Your task to perform on an android device: Clear the shopping cart on bestbuy. Image 0: 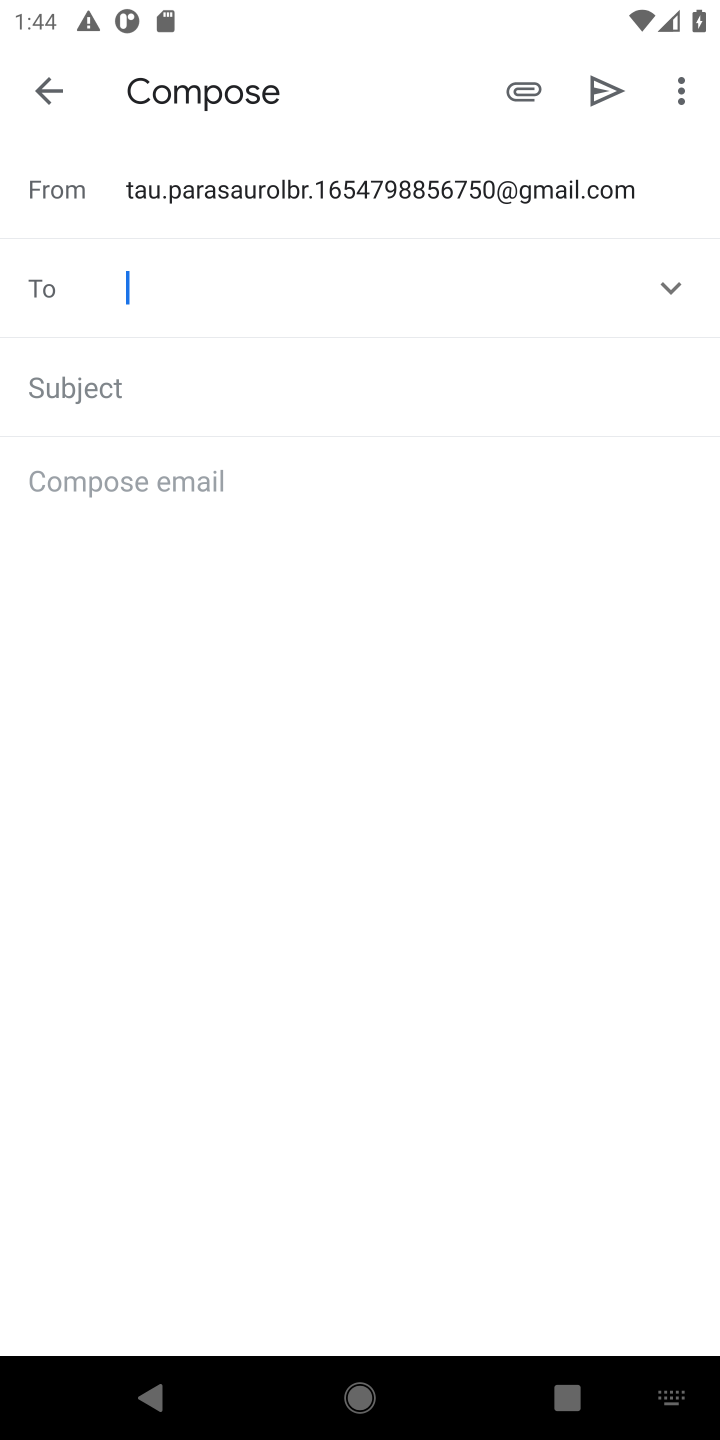
Step 0: press home button
Your task to perform on an android device: Clear the shopping cart on bestbuy. Image 1: 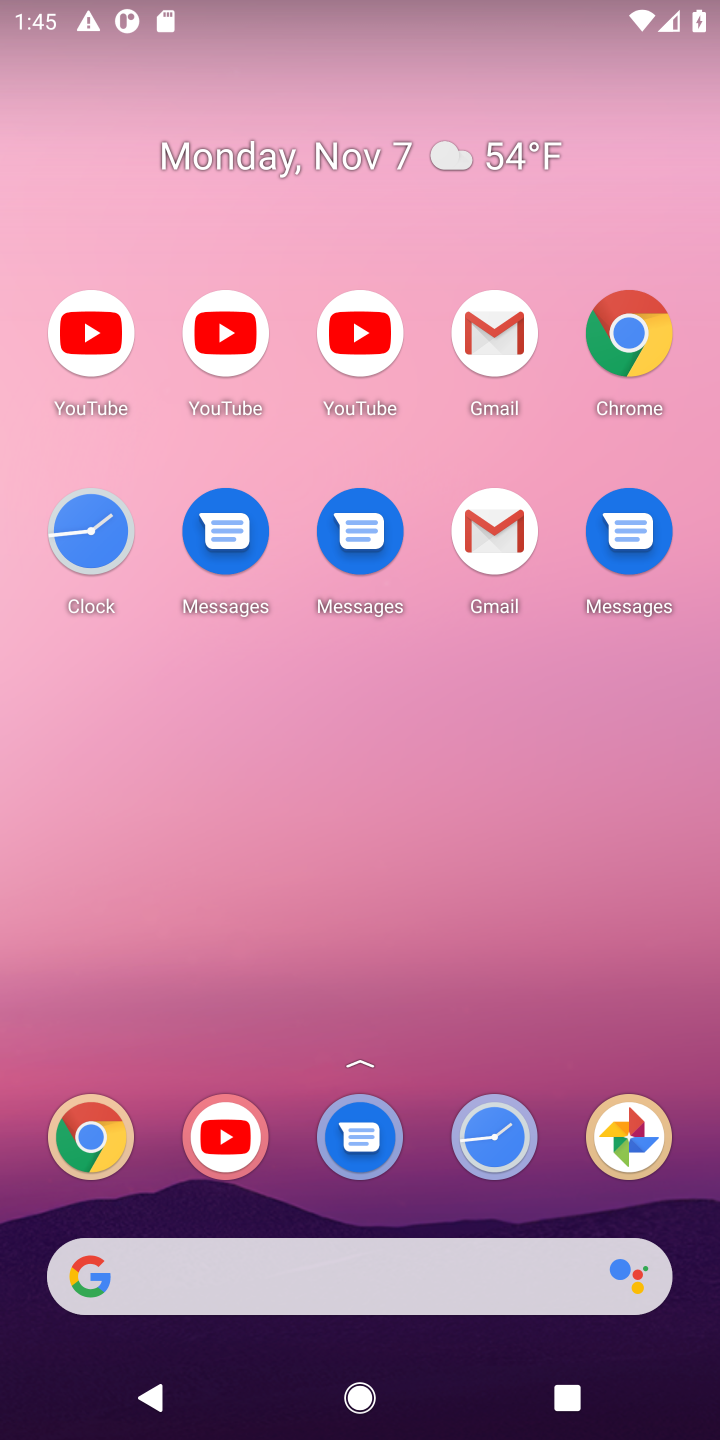
Step 1: drag from (439, 1215) to (288, 116)
Your task to perform on an android device: Clear the shopping cart on bestbuy. Image 2: 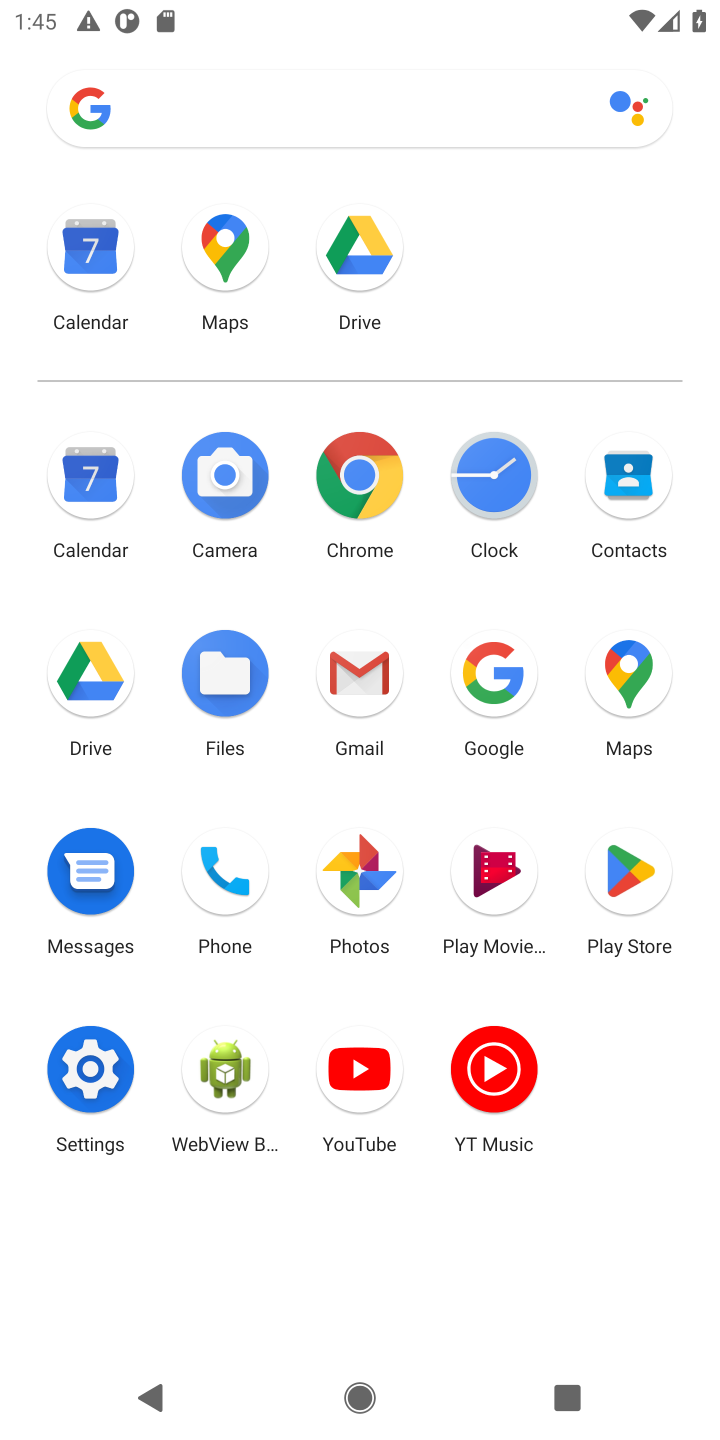
Step 2: click (358, 477)
Your task to perform on an android device: Clear the shopping cart on bestbuy. Image 3: 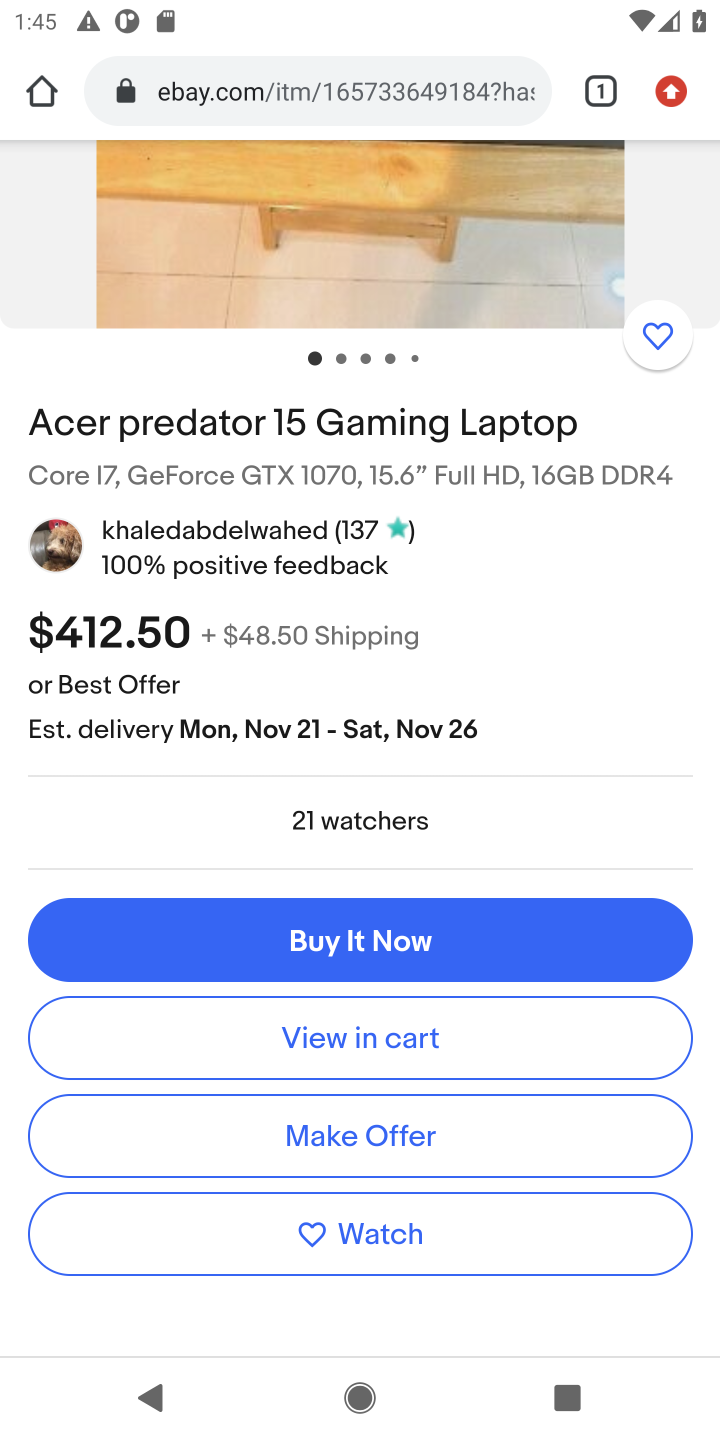
Step 3: click (396, 85)
Your task to perform on an android device: Clear the shopping cart on bestbuy. Image 4: 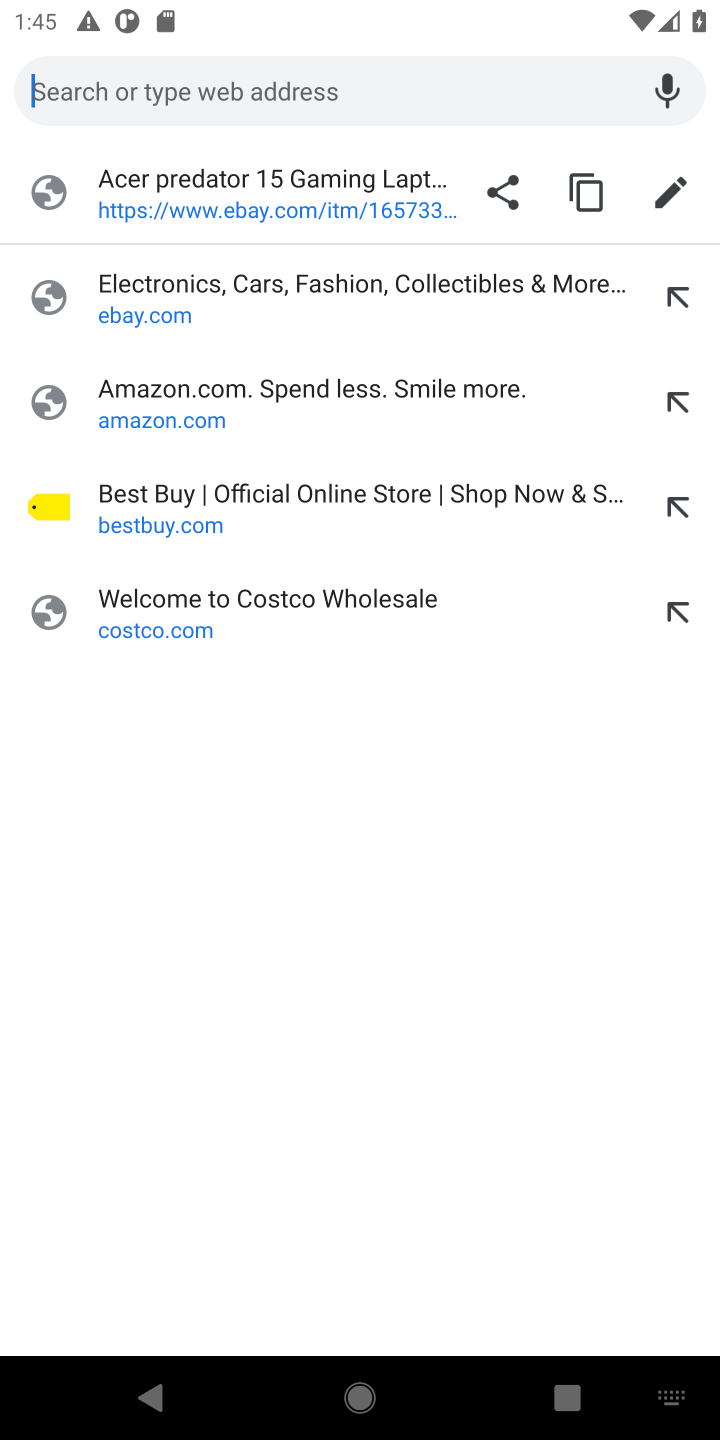
Step 4: type "bestbuy.com"
Your task to perform on an android device: Clear the shopping cart on bestbuy. Image 5: 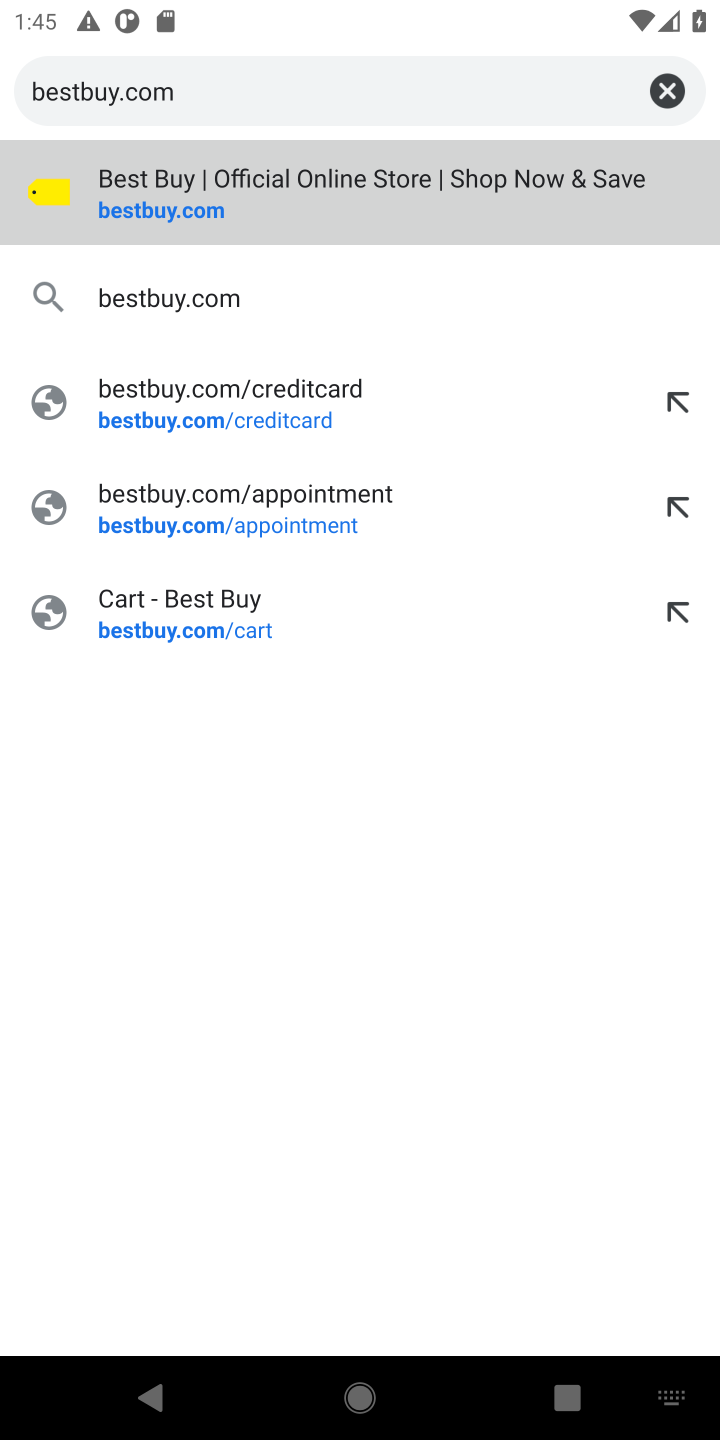
Step 5: press enter
Your task to perform on an android device: Clear the shopping cart on bestbuy. Image 6: 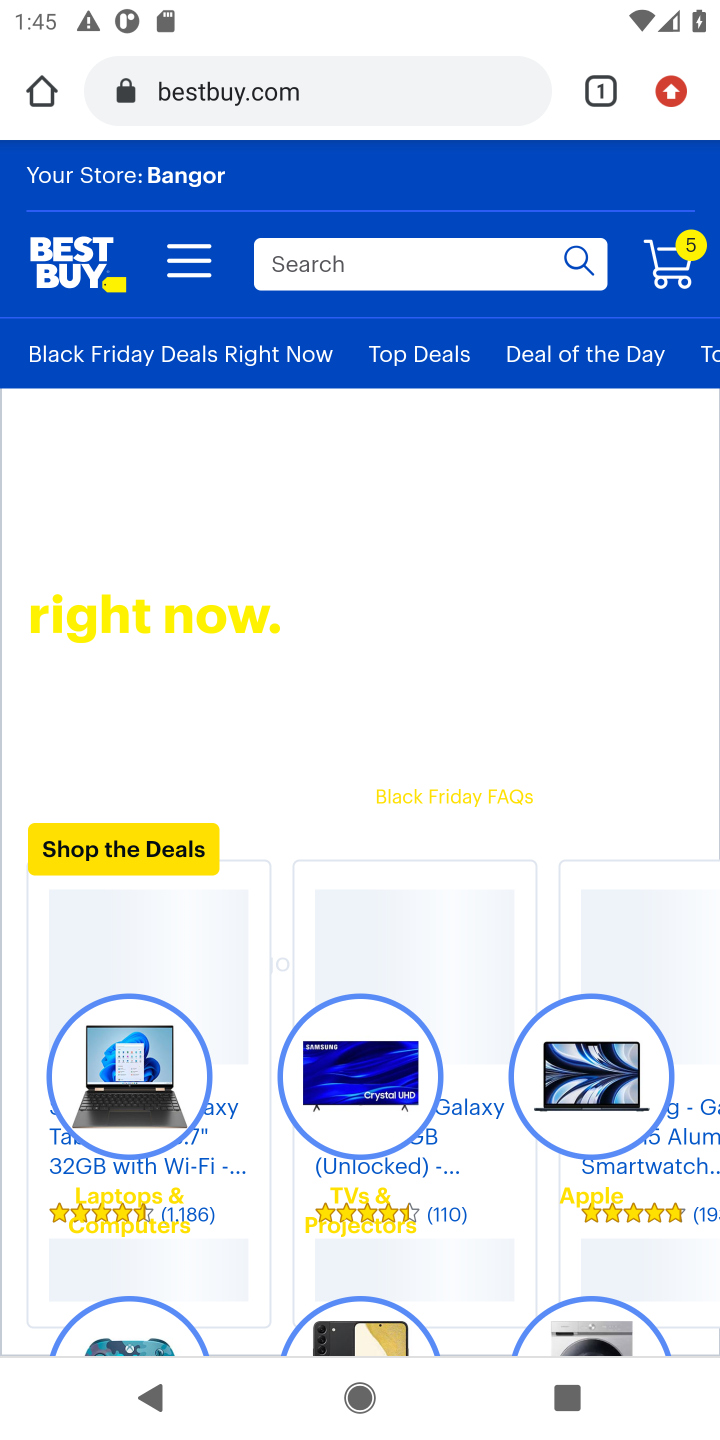
Step 6: click (679, 269)
Your task to perform on an android device: Clear the shopping cart on bestbuy. Image 7: 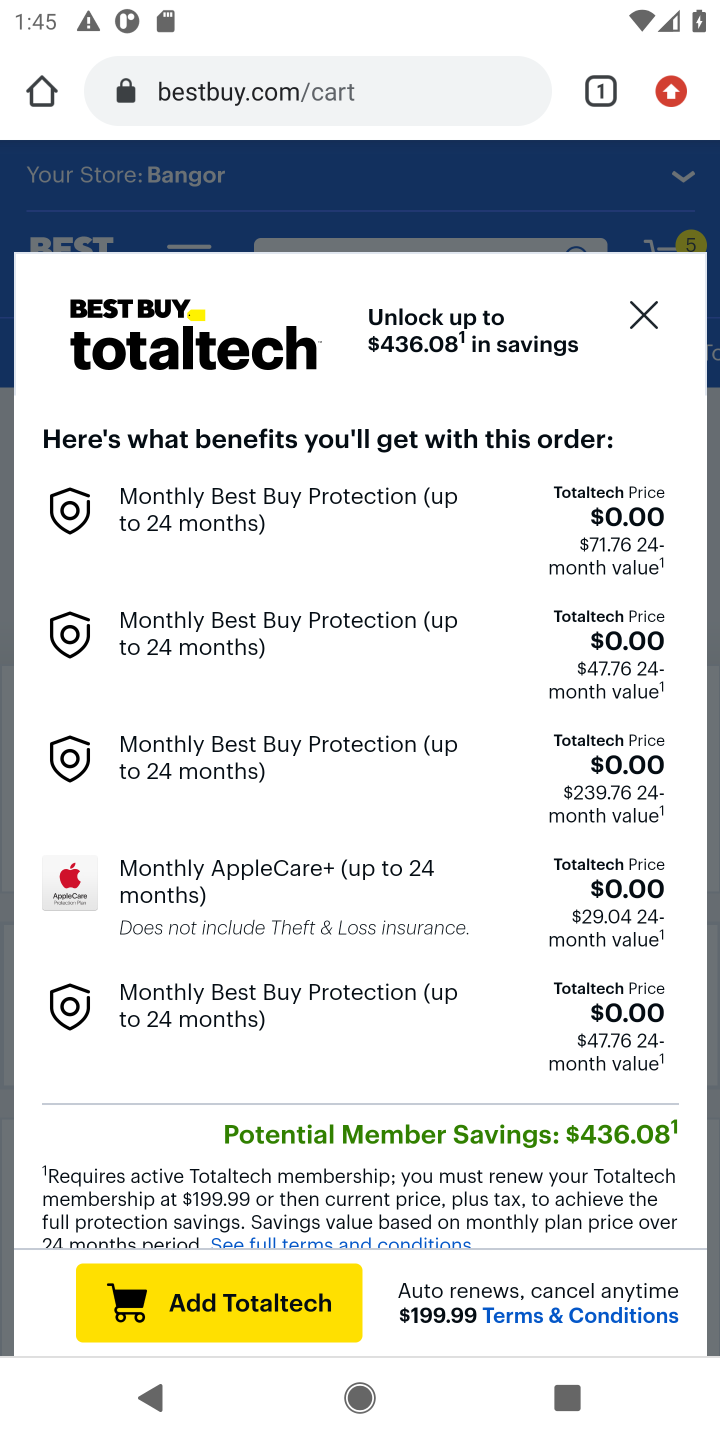
Step 7: click (634, 312)
Your task to perform on an android device: Clear the shopping cart on bestbuy. Image 8: 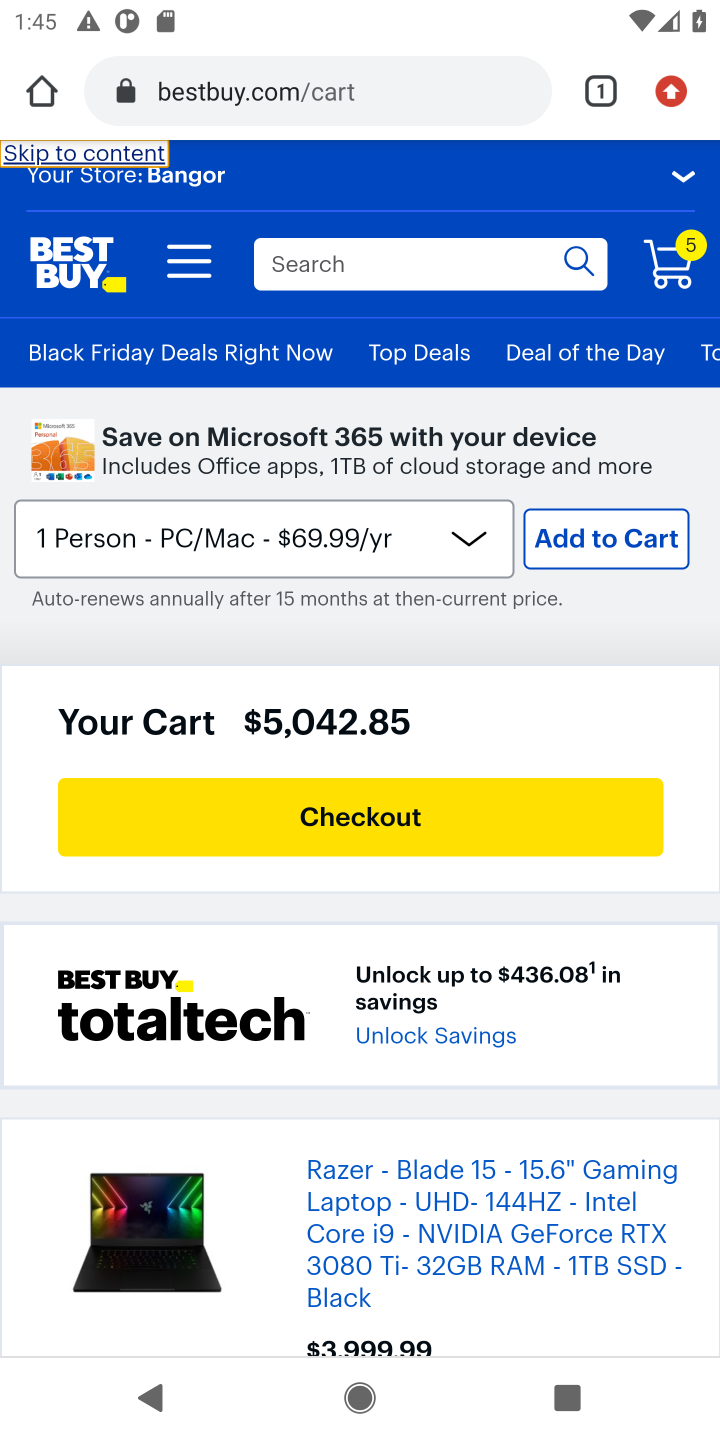
Step 8: drag from (421, 1168) to (476, 257)
Your task to perform on an android device: Clear the shopping cart on bestbuy. Image 9: 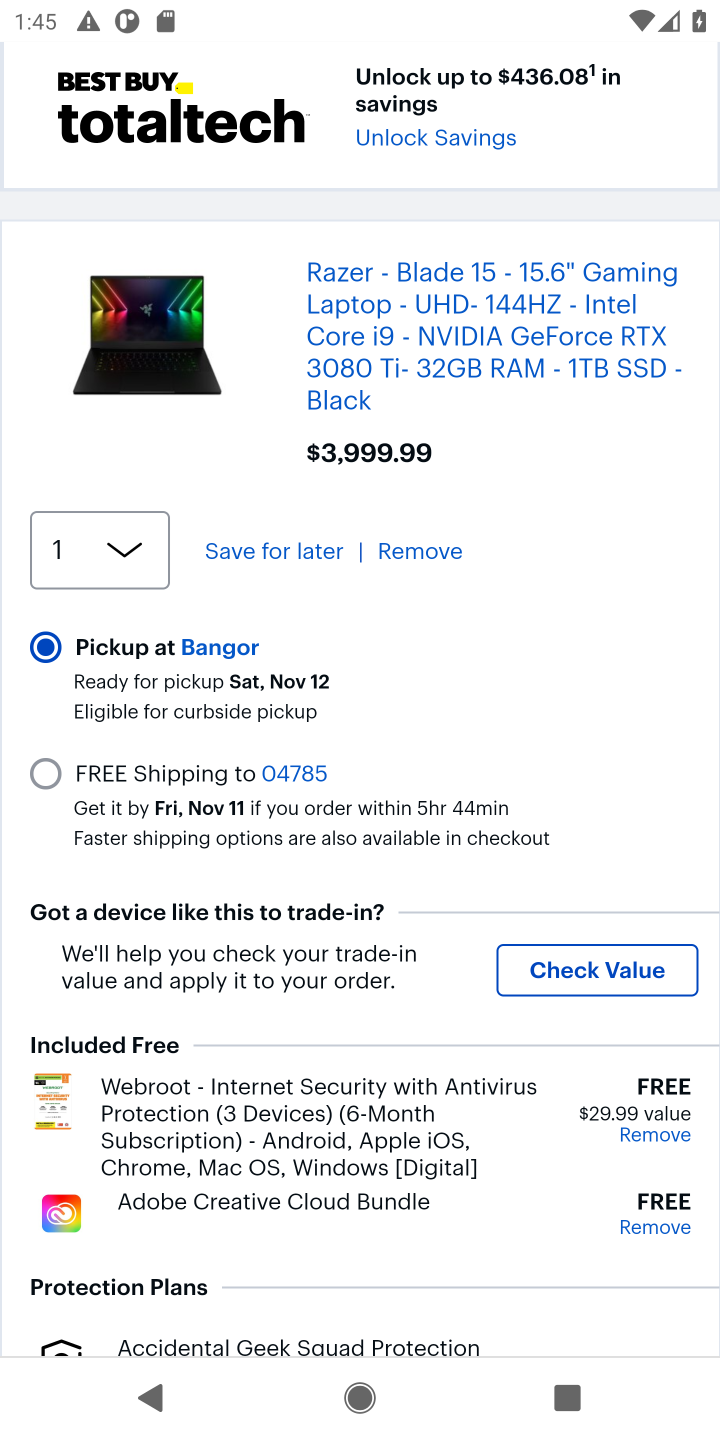
Step 9: click (425, 551)
Your task to perform on an android device: Clear the shopping cart on bestbuy. Image 10: 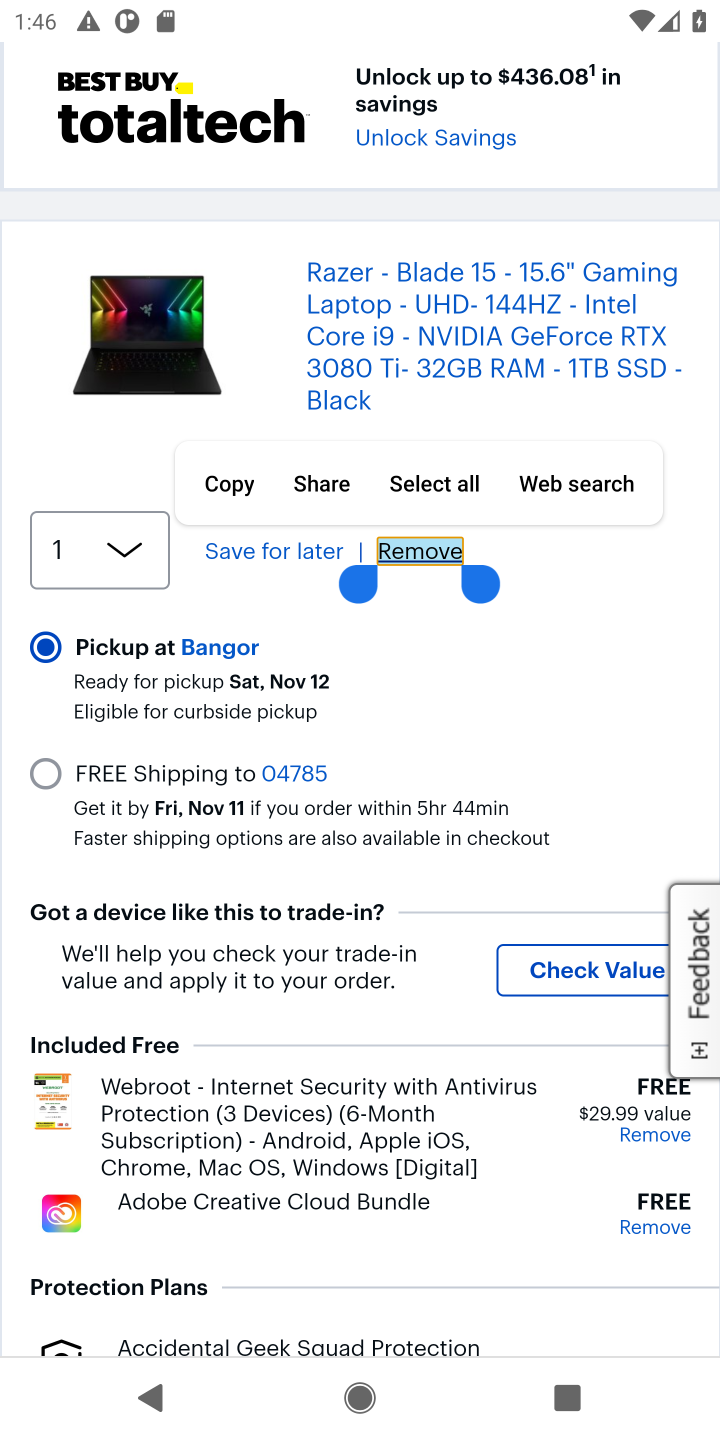
Step 10: click (413, 554)
Your task to perform on an android device: Clear the shopping cart on bestbuy. Image 11: 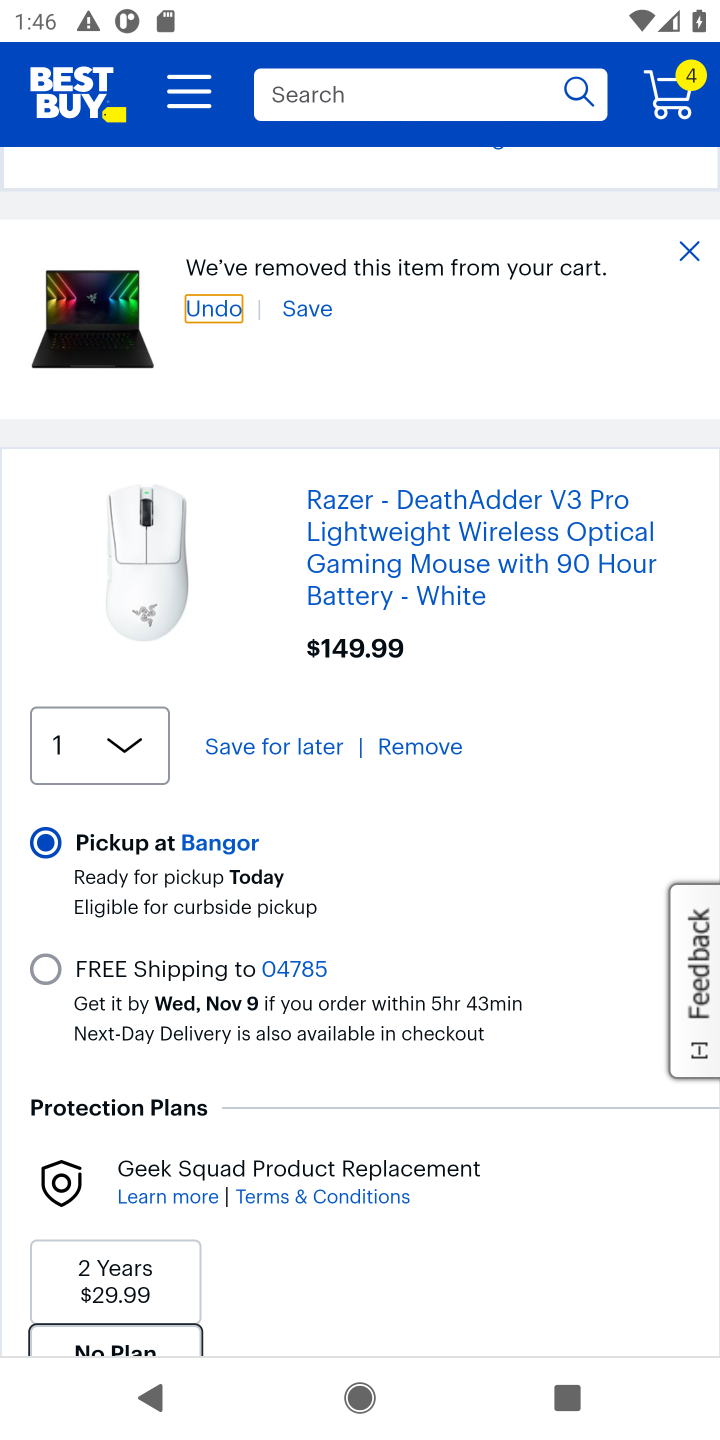
Step 11: click (427, 754)
Your task to perform on an android device: Clear the shopping cart on bestbuy. Image 12: 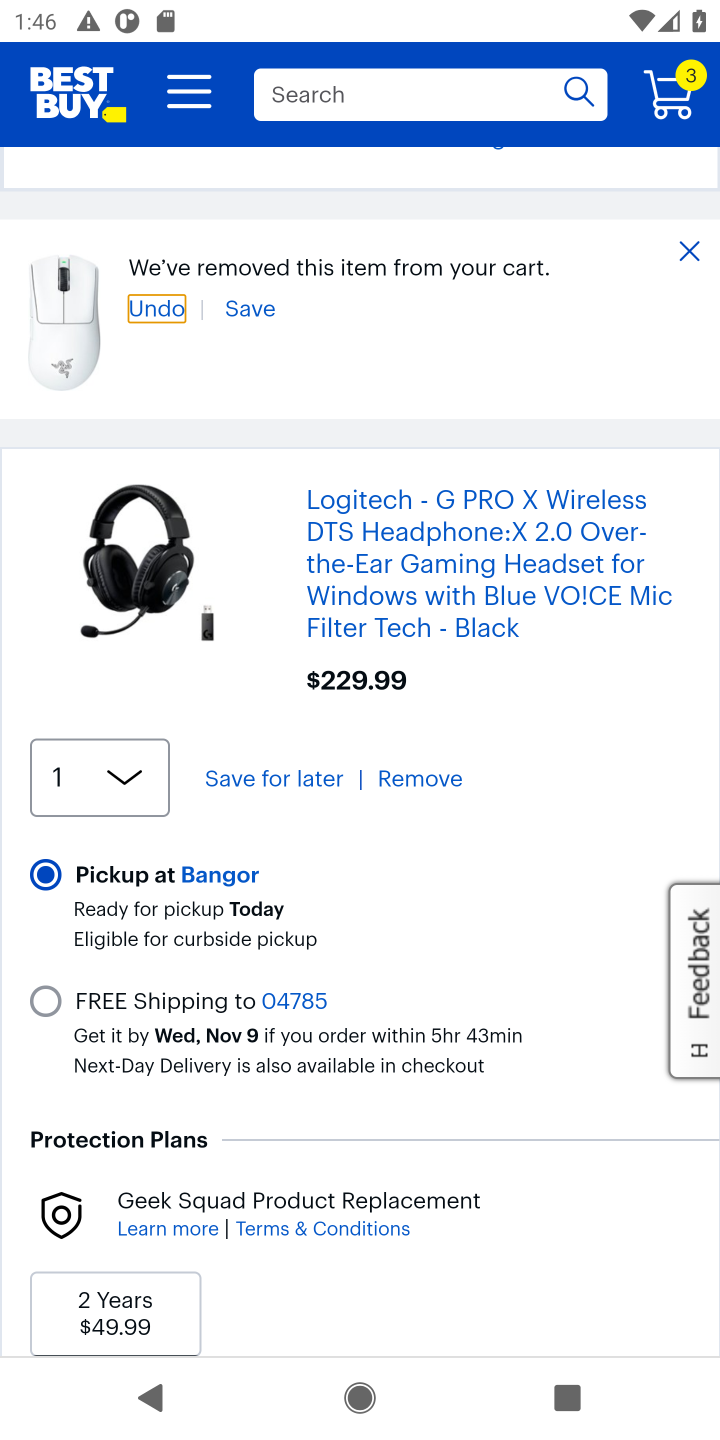
Step 12: click (429, 770)
Your task to perform on an android device: Clear the shopping cart on bestbuy. Image 13: 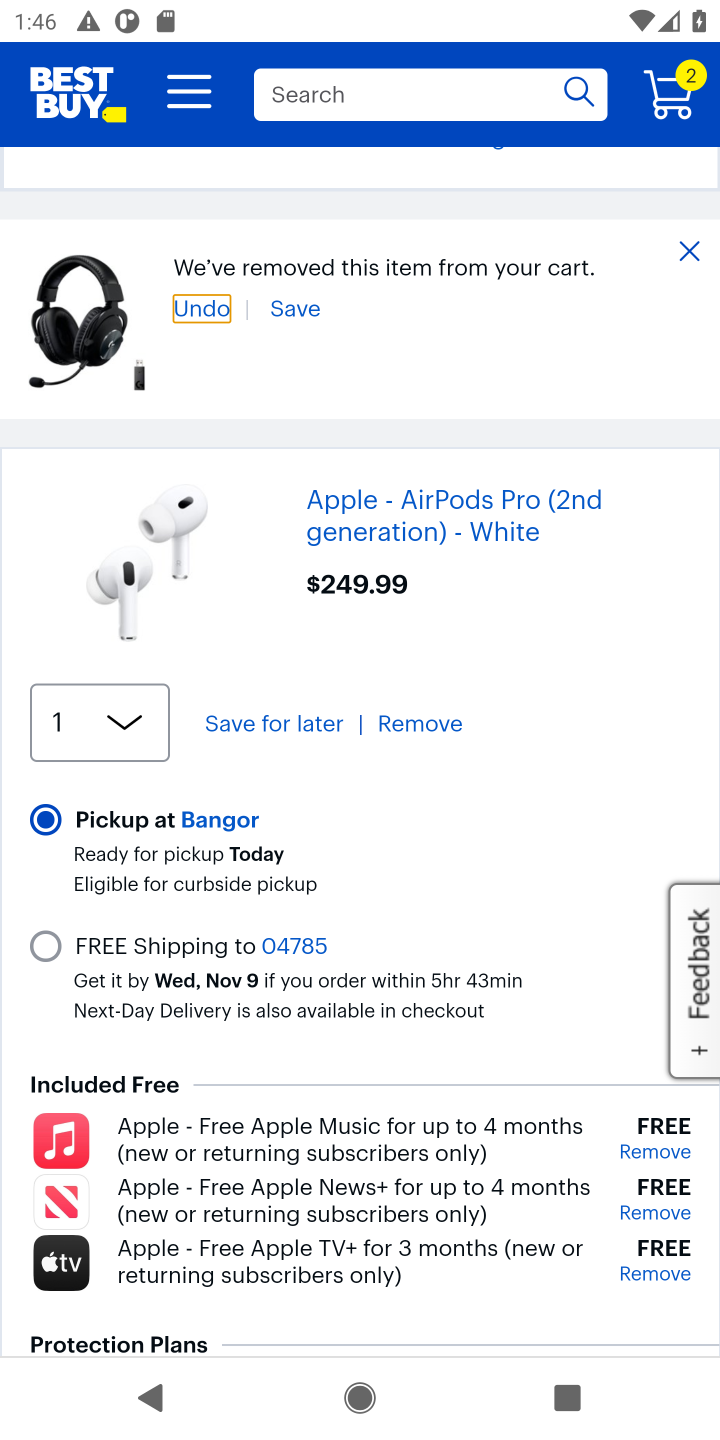
Step 13: click (448, 725)
Your task to perform on an android device: Clear the shopping cart on bestbuy. Image 14: 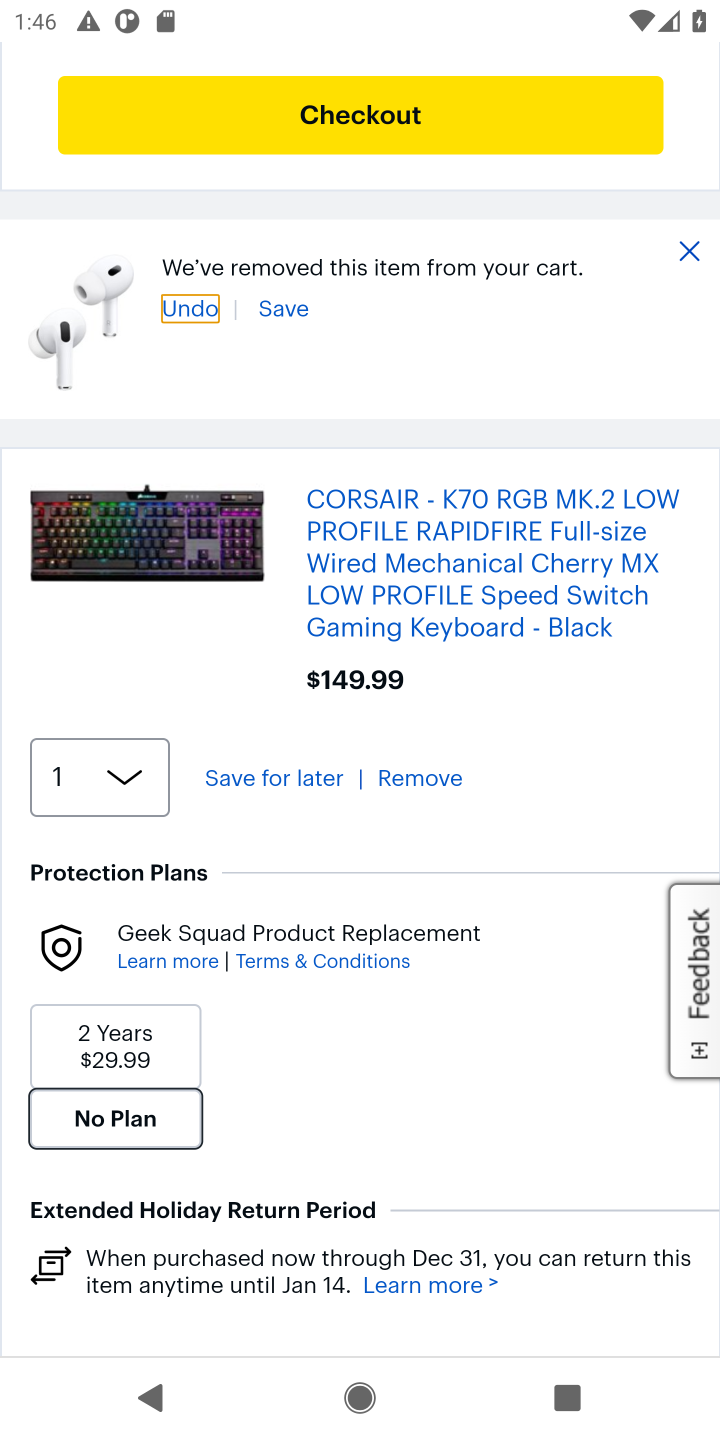
Step 14: click (416, 775)
Your task to perform on an android device: Clear the shopping cart on bestbuy. Image 15: 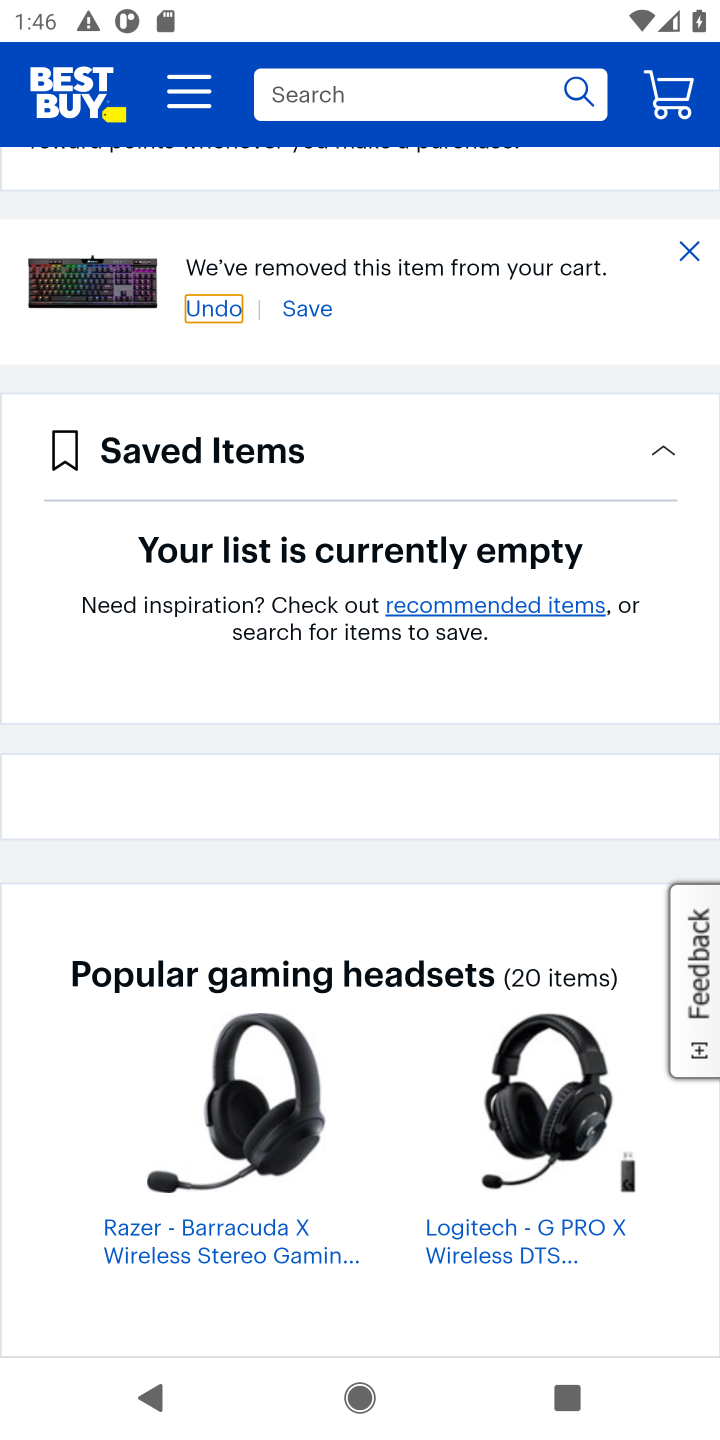
Step 15: click (696, 244)
Your task to perform on an android device: Clear the shopping cart on bestbuy. Image 16: 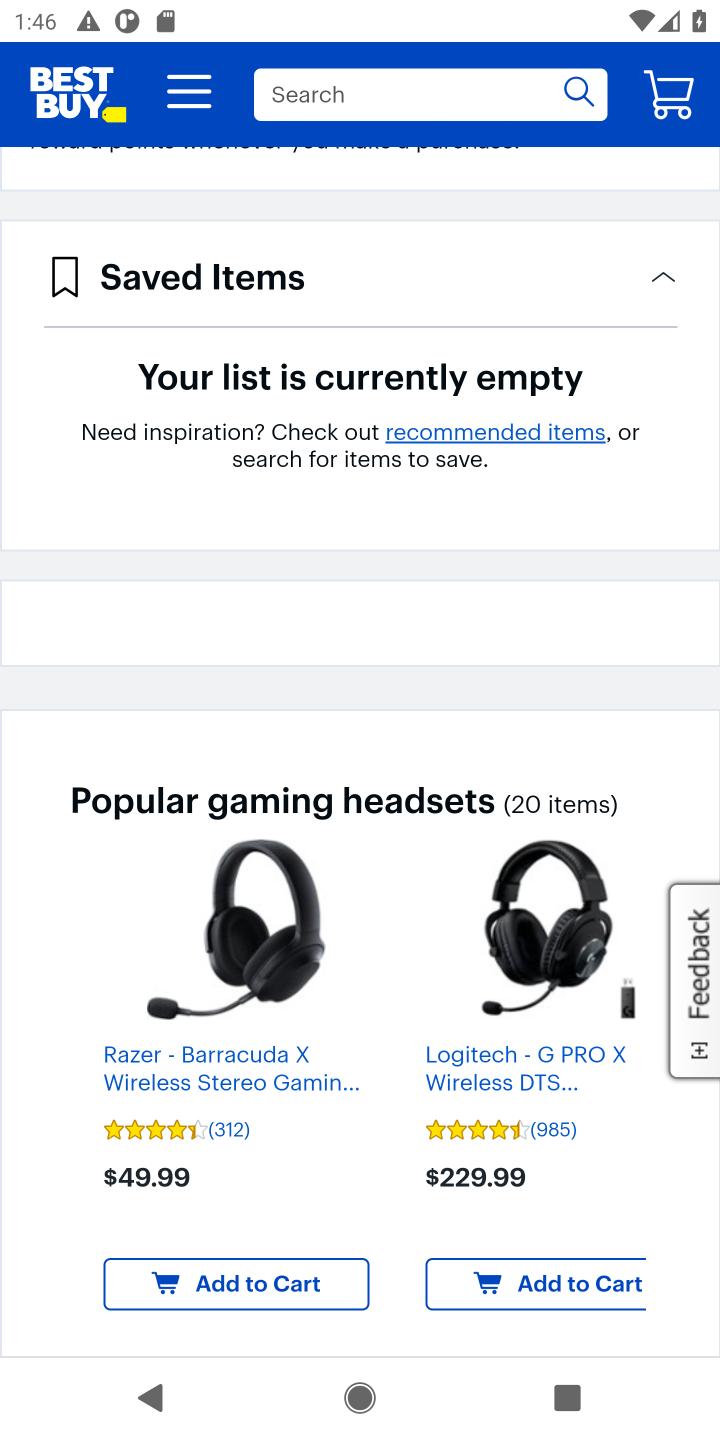
Step 16: task complete